Your task to perform on an android device: open a new tab in the chrome app Image 0: 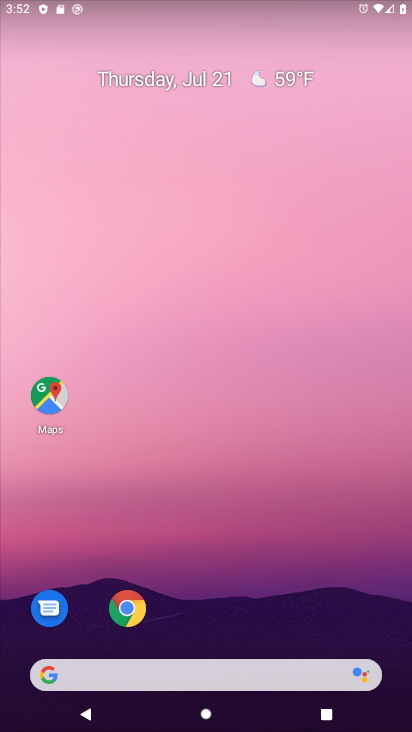
Step 0: drag from (316, 668) to (305, 0)
Your task to perform on an android device: open a new tab in the chrome app Image 1: 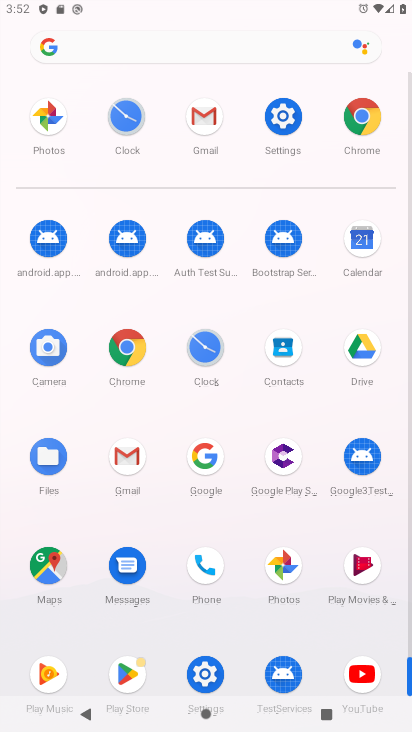
Step 1: click (286, 127)
Your task to perform on an android device: open a new tab in the chrome app Image 2: 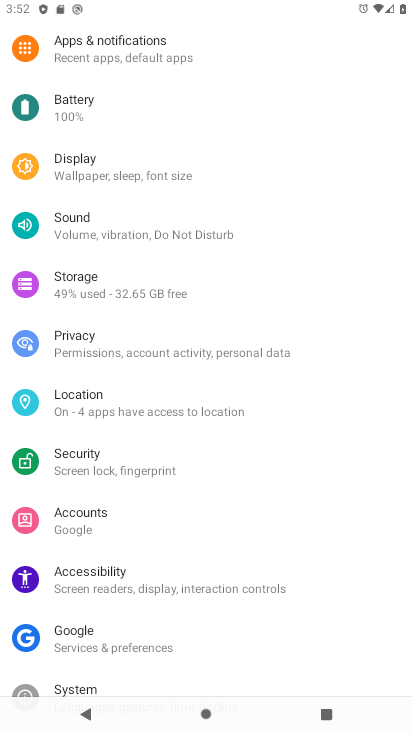
Step 2: press home button
Your task to perform on an android device: open a new tab in the chrome app Image 3: 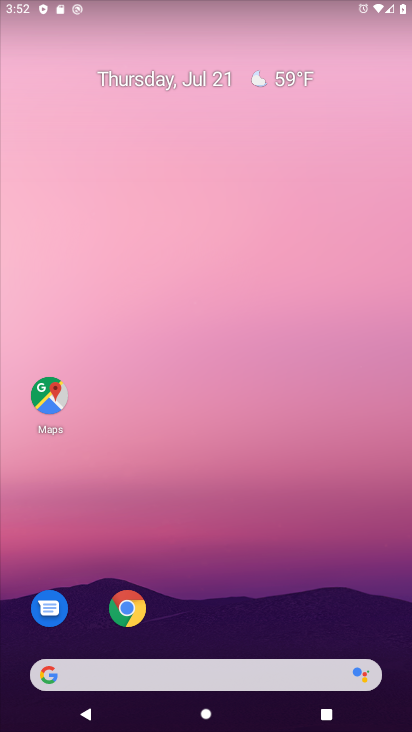
Step 3: drag from (212, 639) to (253, 20)
Your task to perform on an android device: open a new tab in the chrome app Image 4: 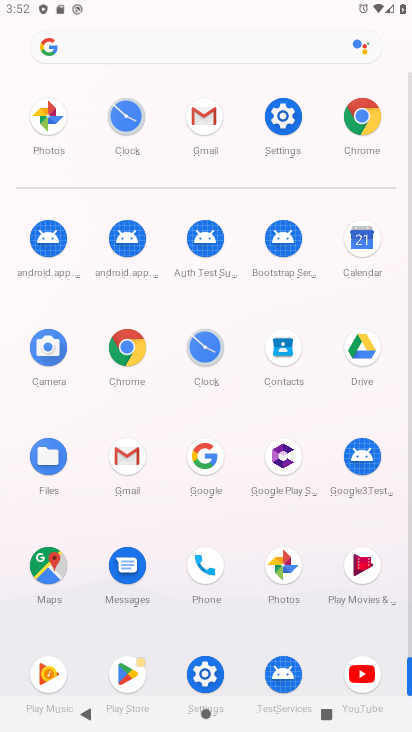
Step 4: click (134, 339)
Your task to perform on an android device: open a new tab in the chrome app Image 5: 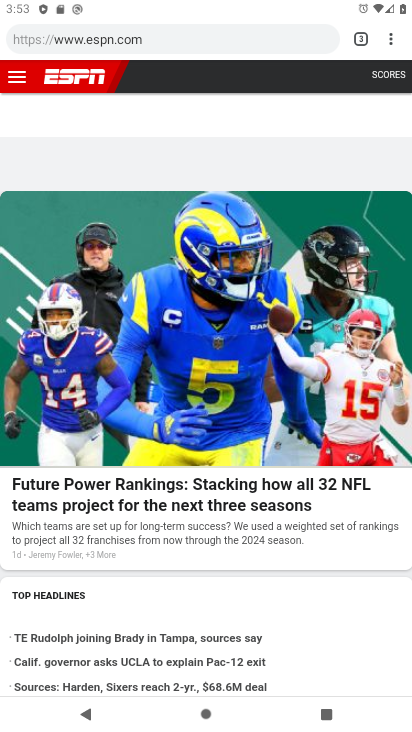
Step 5: task complete